Your task to perform on an android device: Go to wifi settings Image 0: 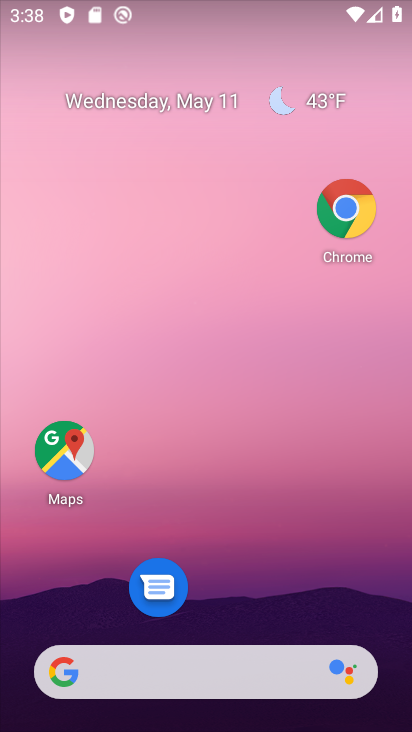
Step 0: drag from (281, 3) to (38, 702)
Your task to perform on an android device: Go to wifi settings Image 1: 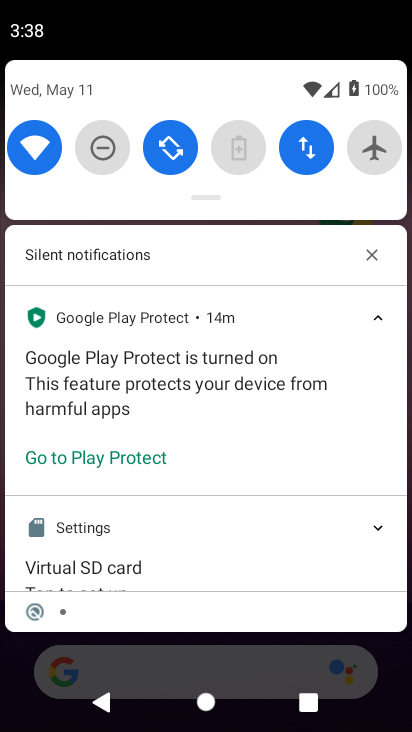
Step 1: click (37, 151)
Your task to perform on an android device: Go to wifi settings Image 2: 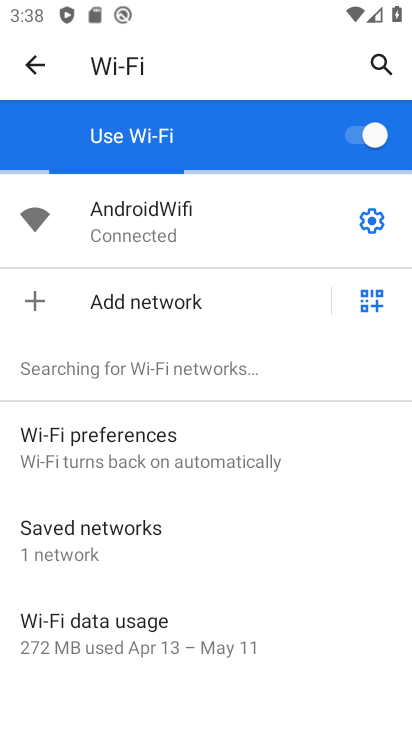
Step 2: task complete